Your task to perform on an android device: Open CNN.com Image 0: 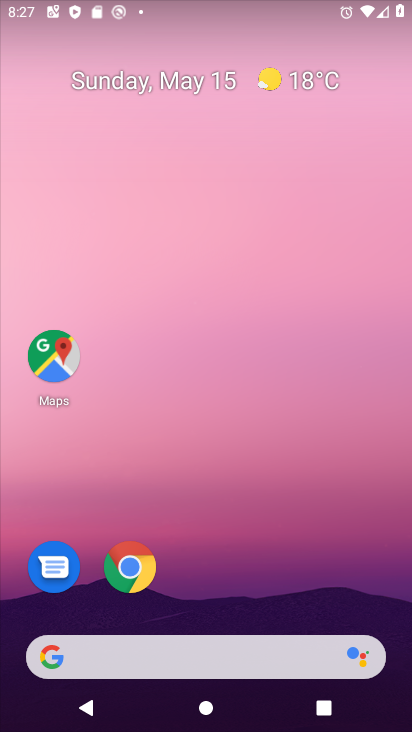
Step 0: click (301, 668)
Your task to perform on an android device: Open CNN.com Image 1: 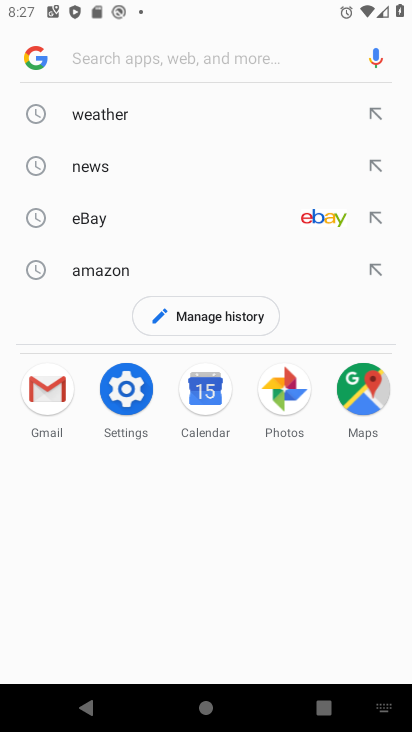
Step 1: type "cnn.com"
Your task to perform on an android device: Open CNN.com Image 2: 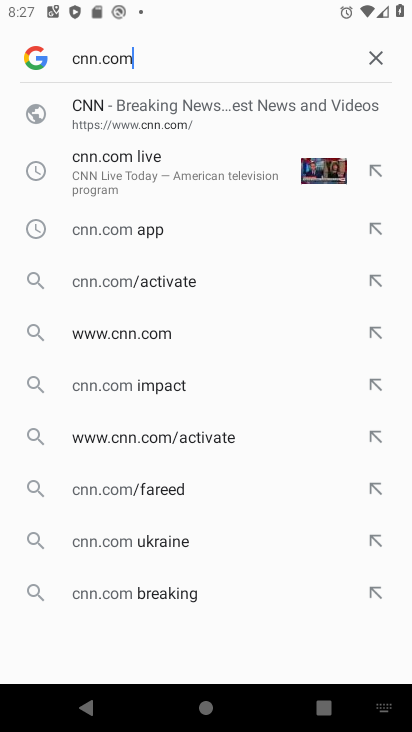
Step 2: click (222, 114)
Your task to perform on an android device: Open CNN.com Image 3: 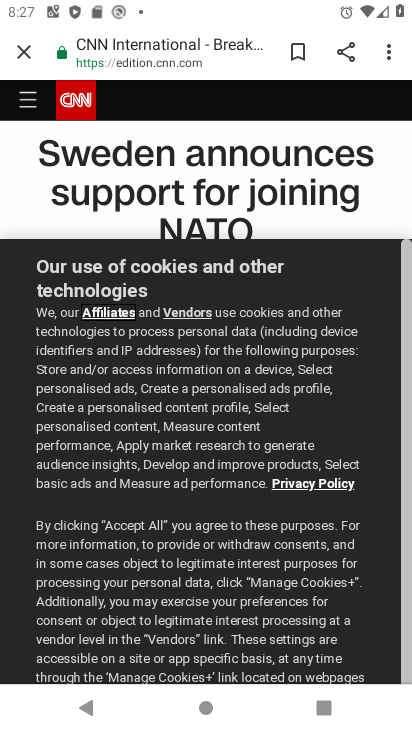
Step 3: task complete